Your task to perform on an android device: Go to Google Image 0: 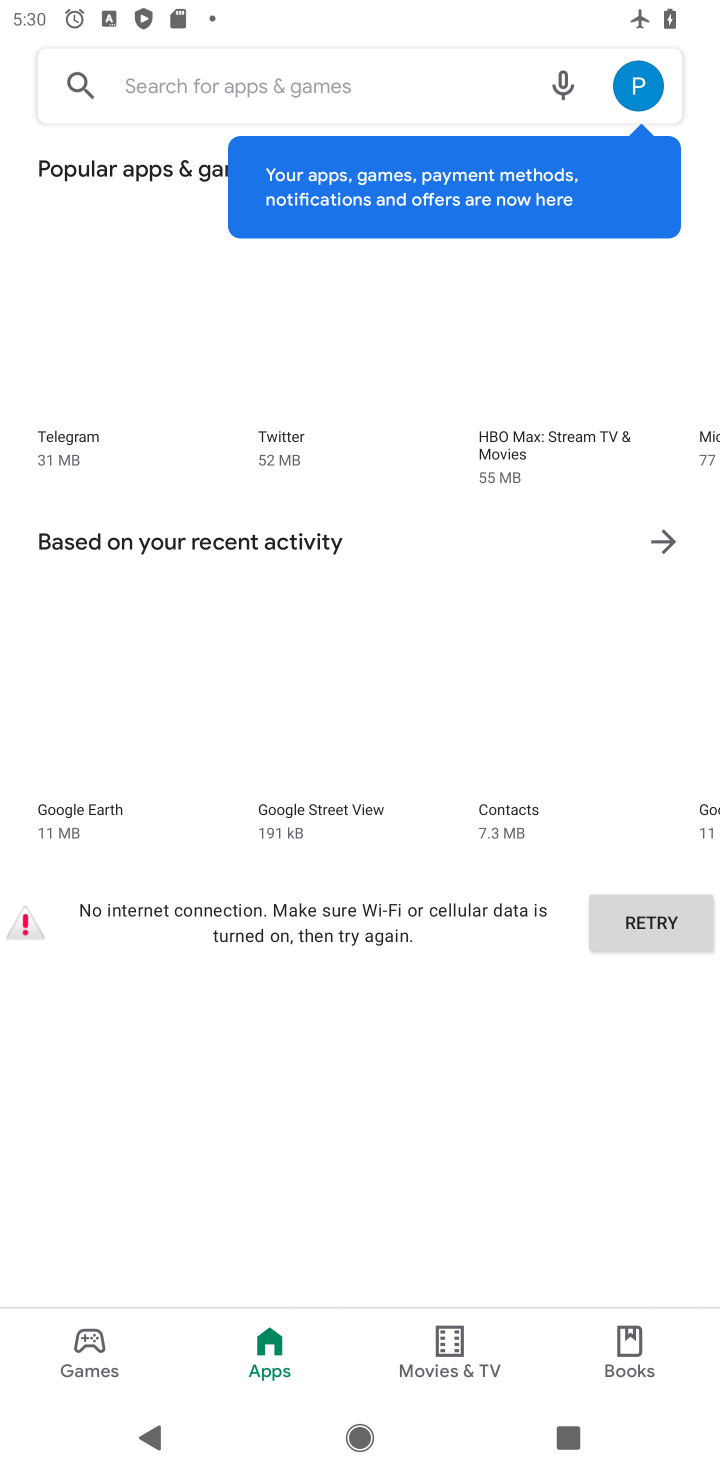
Step 0: press home button
Your task to perform on an android device: Go to Google Image 1: 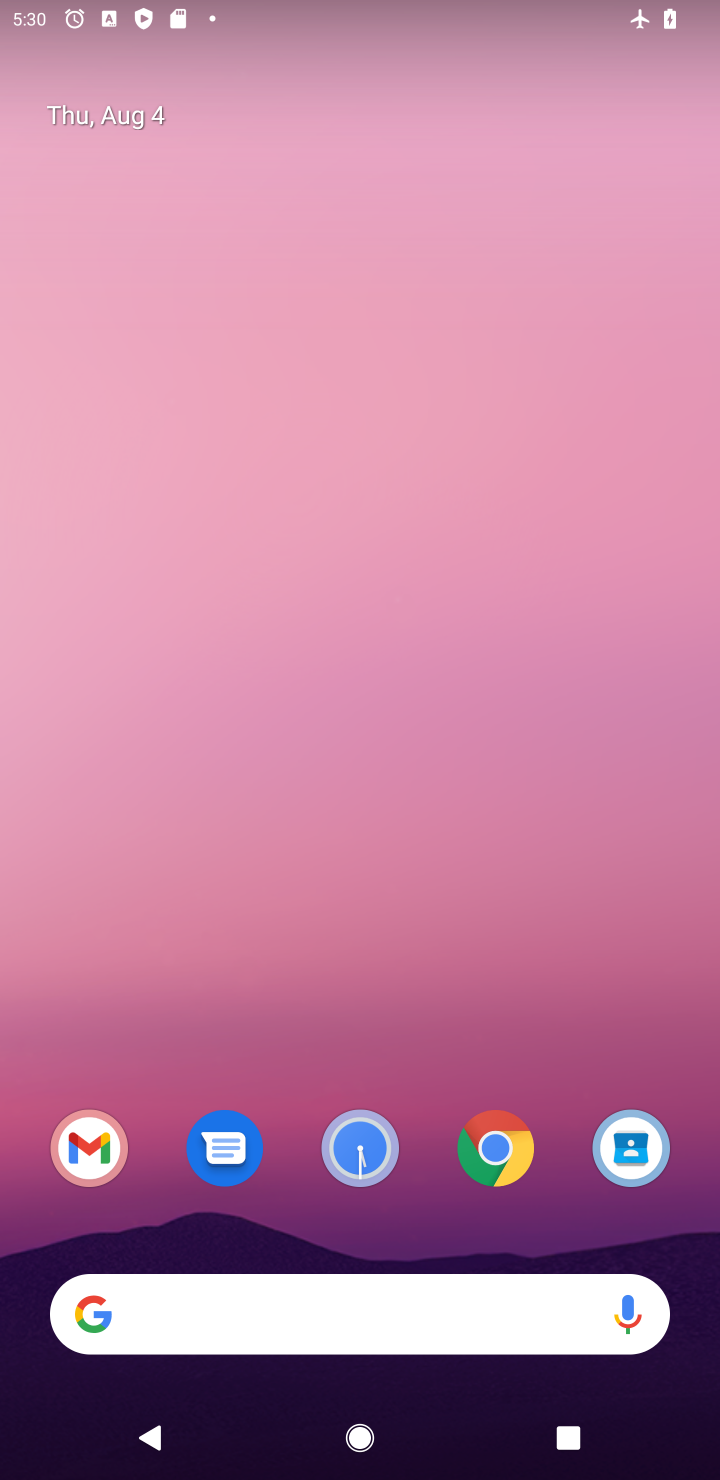
Step 1: click (496, 1157)
Your task to perform on an android device: Go to Google Image 2: 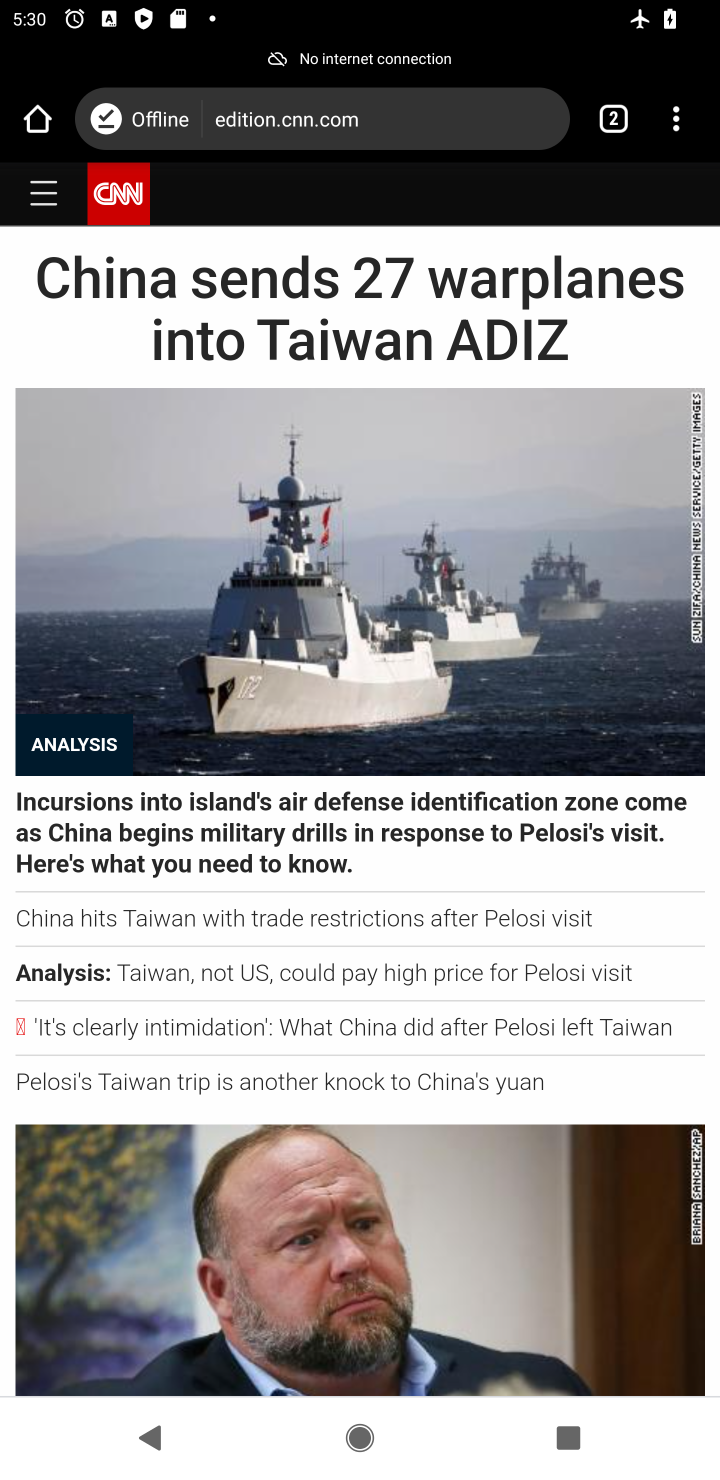
Step 2: task complete